Your task to perform on an android device: Open Reddit.com Image 0: 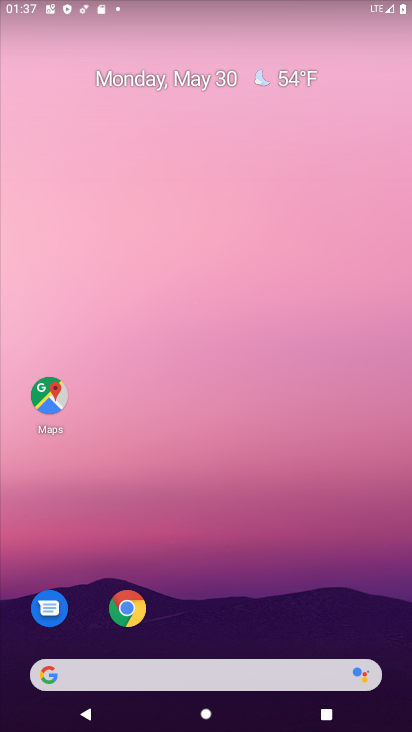
Step 0: click (129, 597)
Your task to perform on an android device: Open Reddit.com Image 1: 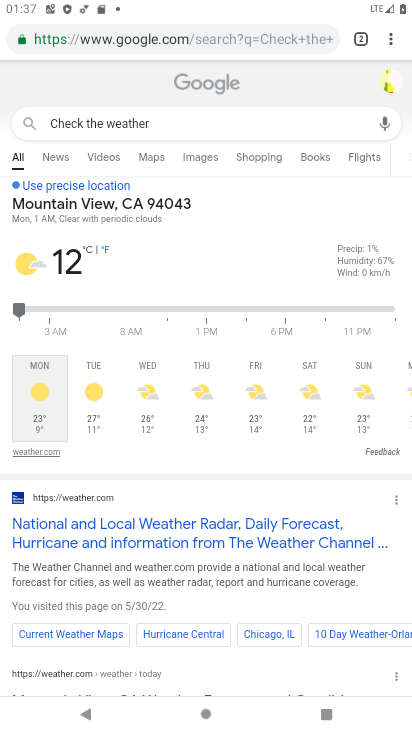
Step 1: click (398, 35)
Your task to perform on an android device: Open Reddit.com Image 2: 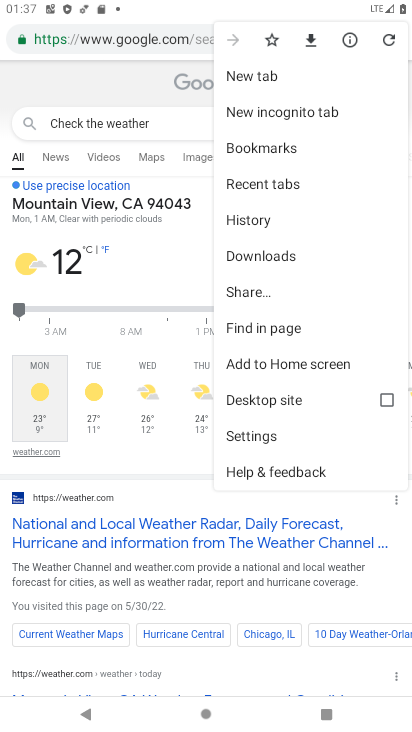
Step 2: click (237, 86)
Your task to perform on an android device: Open Reddit.com Image 3: 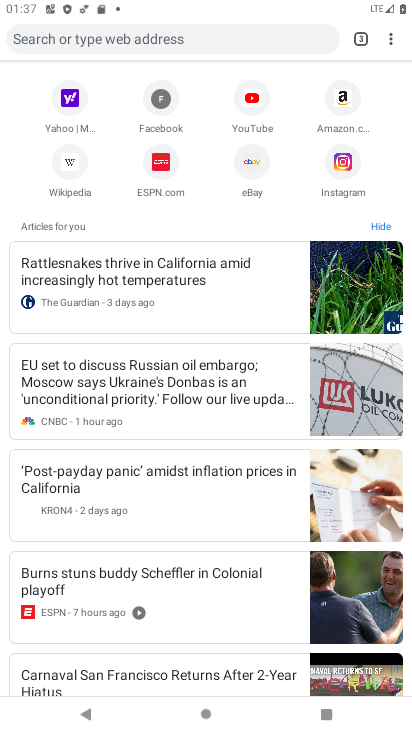
Step 3: click (153, 34)
Your task to perform on an android device: Open Reddit.com Image 4: 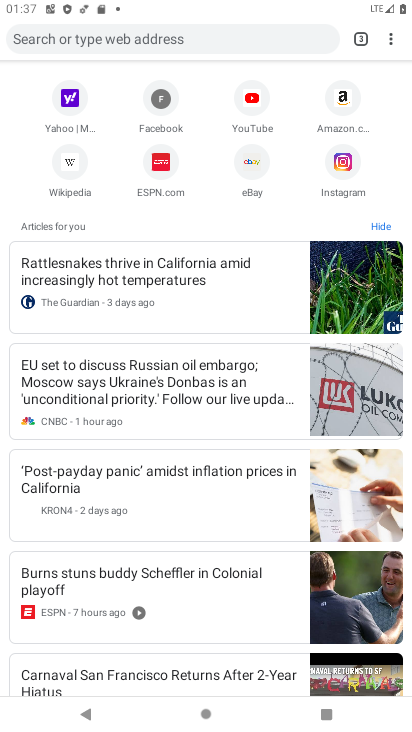
Step 4: type "Reddit.com"
Your task to perform on an android device: Open Reddit.com Image 5: 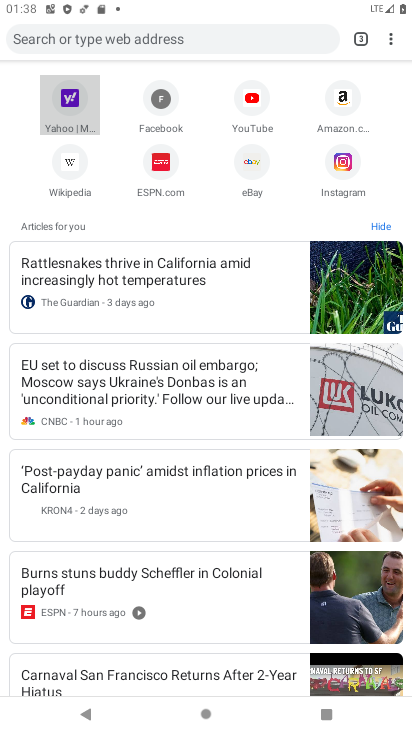
Step 5: click (154, 31)
Your task to perform on an android device: Open Reddit.com Image 6: 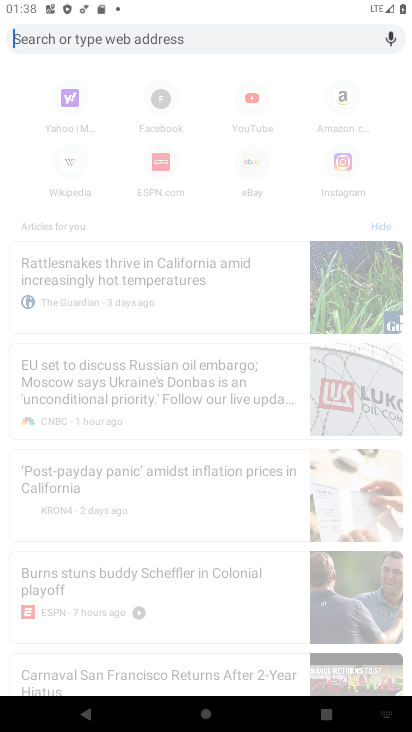
Step 6: type "Reddit.com"
Your task to perform on an android device: Open Reddit.com Image 7: 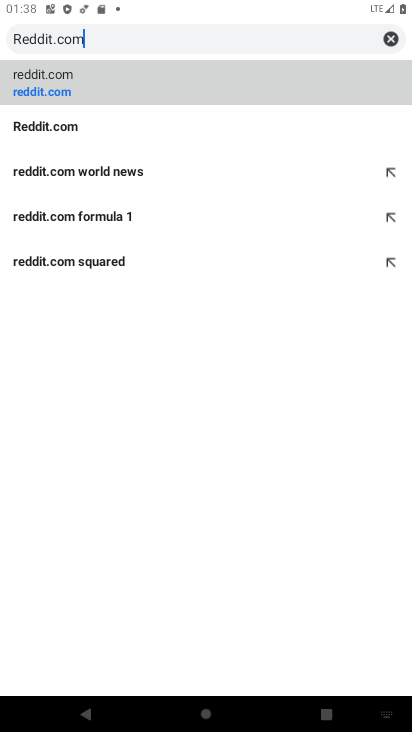
Step 7: click (110, 82)
Your task to perform on an android device: Open Reddit.com Image 8: 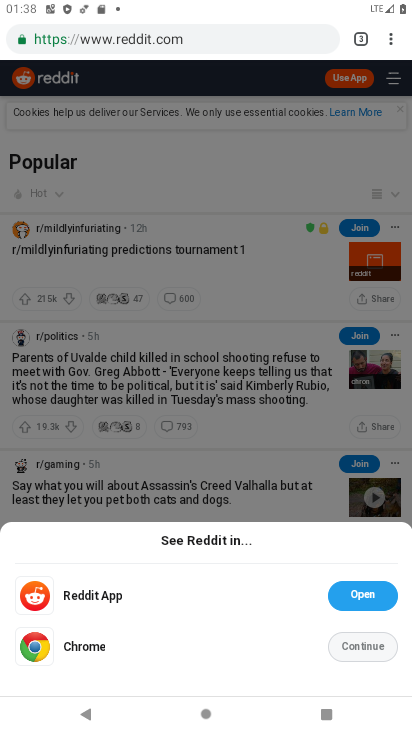
Step 8: task complete